Your task to perform on an android device: Go to notification settings Image 0: 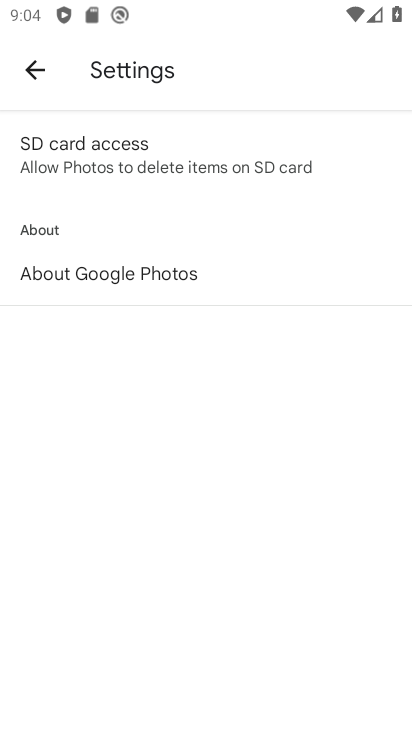
Step 0: press home button
Your task to perform on an android device: Go to notification settings Image 1: 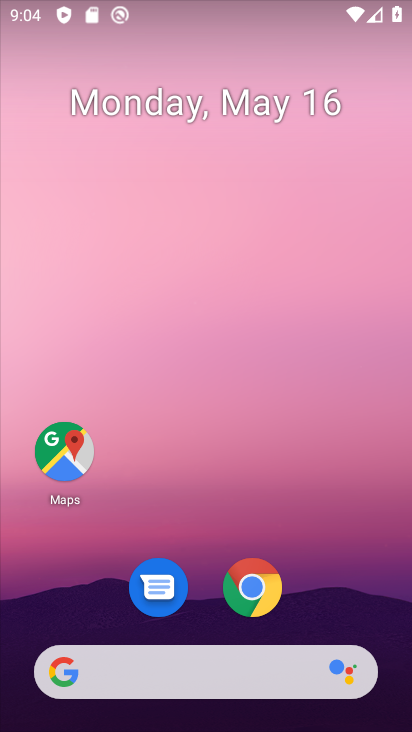
Step 1: drag from (88, 635) to (153, 111)
Your task to perform on an android device: Go to notification settings Image 2: 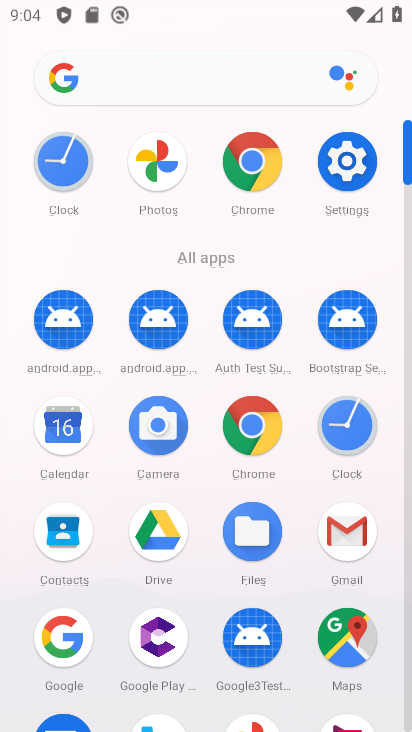
Step 2: drag from (154, 660) to (222, 361)
Your task to perform on an android device: Go to notification settings Image 3: 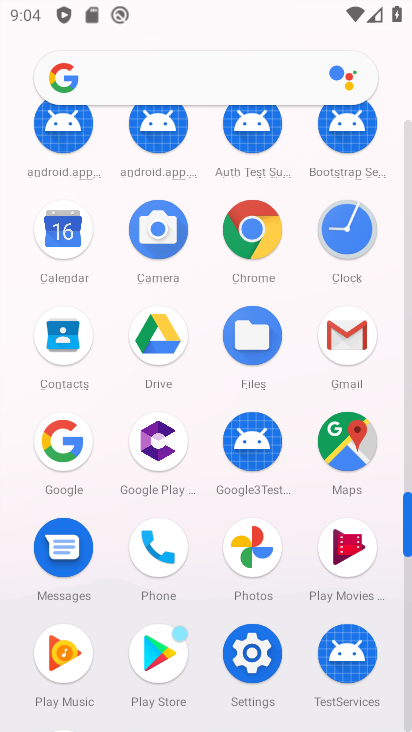
Step 3: click (263, 666)
Your task to perform on an android device: Go to notification settings Image 4: 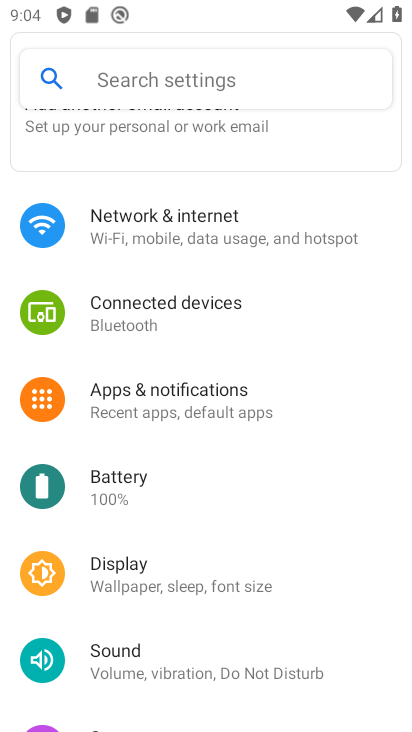
Step 4: click (199, 421)
Your task to perform on an android device: Go to notification settings Image 5: 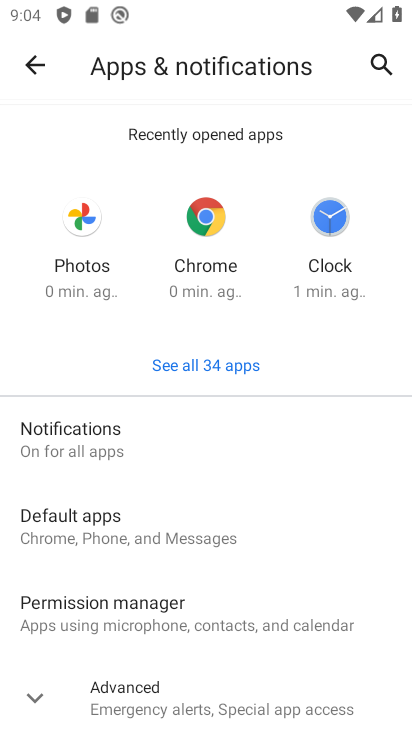
Step 5: click (208, 432)
Your task to perform on an android device: Go to notification settings Image 6: 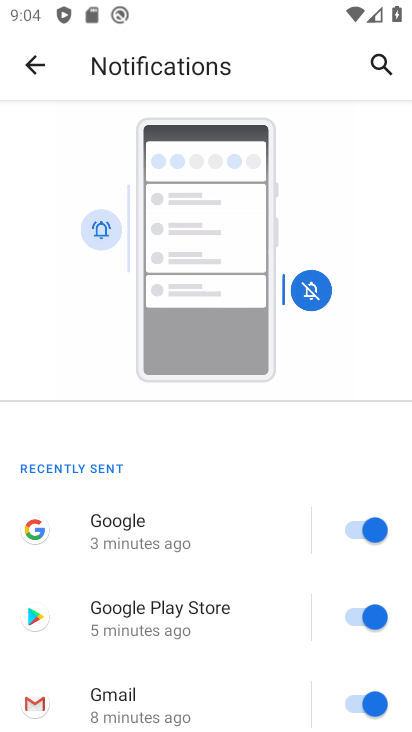
Step 6: task complete